Your task to perform on an android device: Open privacy settings Image 0: 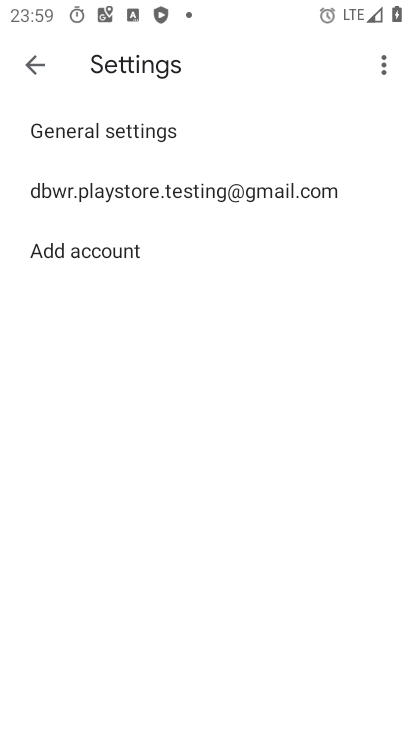
Step 0: press back button
Your task to perform on an android device: Open privacy settings Image 1: 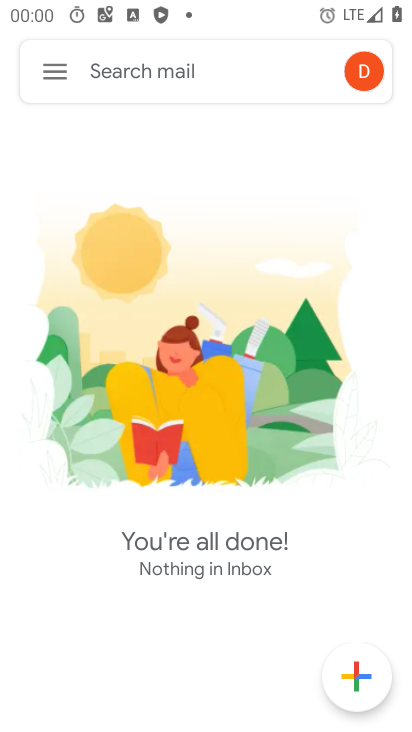
Step 1: press home button
Your task to perform on an android device: Open privacy settings Image 2: 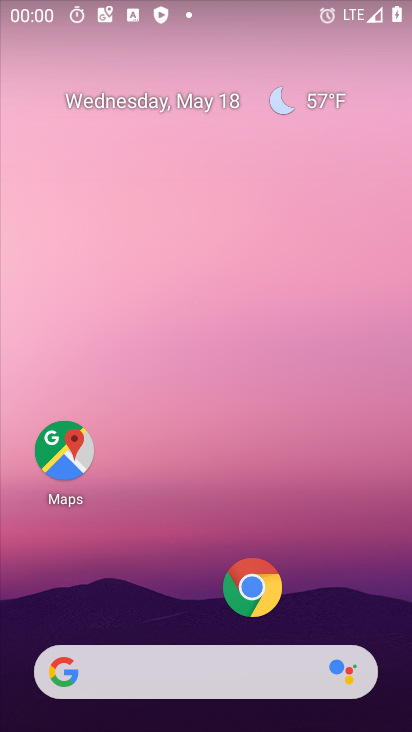
Step 2: drag from (41, 587) to (275, 194)
Your task to perform on an android device: Open privacy settings Image 3: 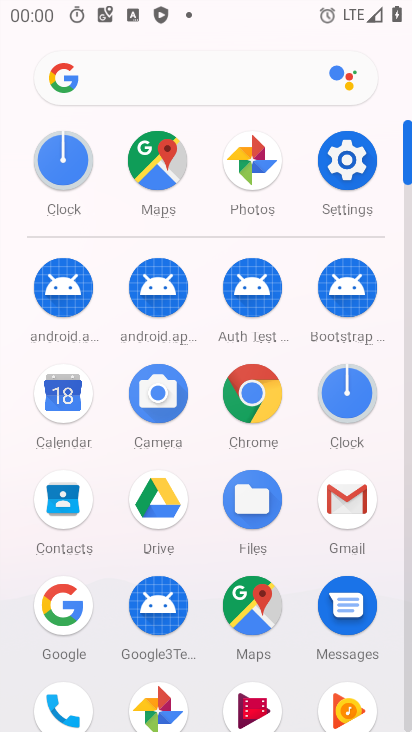
Step 3: click (358, 157)
Your task to perform on an android device: Open privacy settings Image 4: 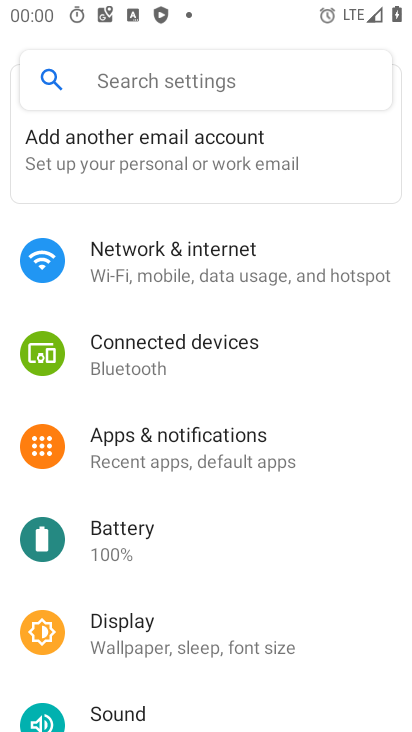
Step 4: drag from (26, 540) to (285, 180)
Your task to perform on an android device: Open privacy settings Image 5: 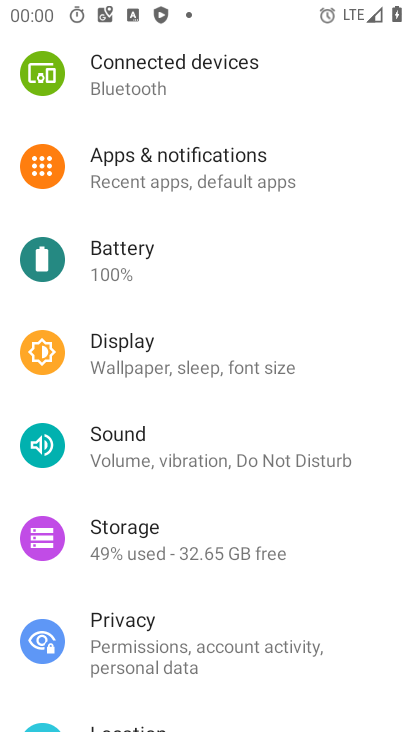
Step 5: click (184, 656)
Your task to perform on an android device: Open privacy settings Image 6: 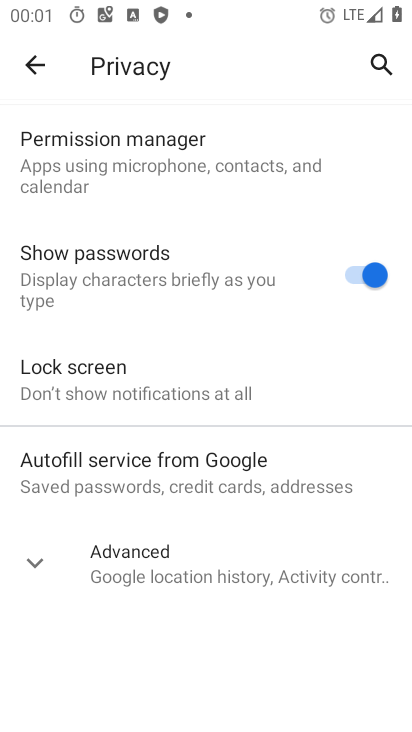
Step 6: press home button
Your task to perform on an android device: Open privacy settings Image 7: 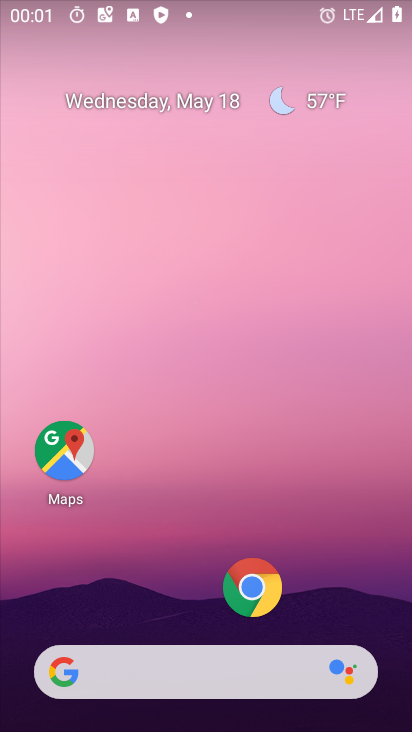
Step 7: drag from (105, 403) to (206, 132)
Your task to perform on an android device: Open privacy settings Image 8: 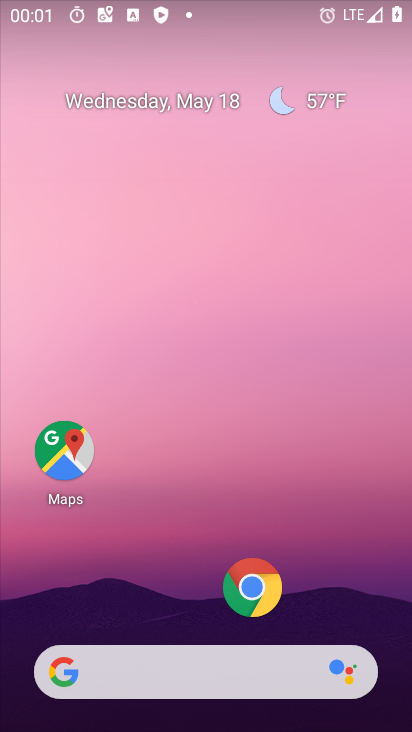
Step 8: drag from (141, 729) to (314, 35)
Your task to perform on an android device: Open privacy settings Image 9: 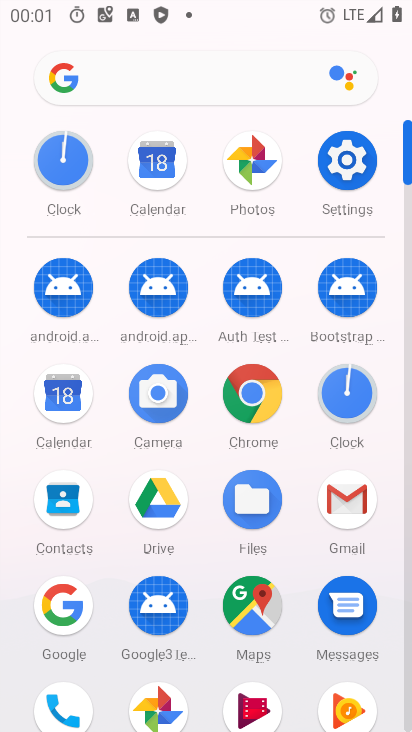
Step 9: click (330, 159)
Your task to perform on an android device: Open privacy settings Image 10: 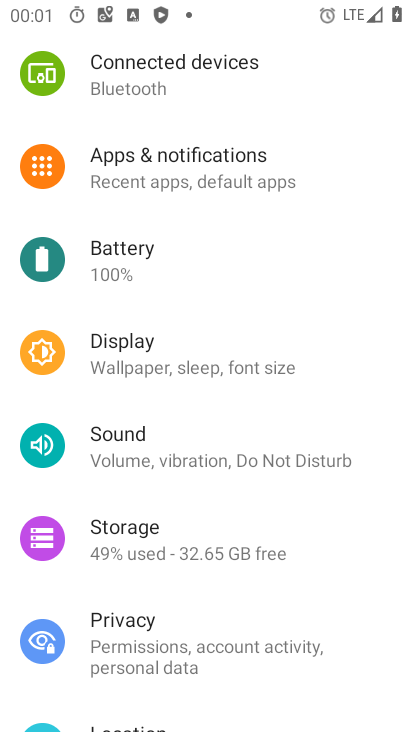
Step 10: click (131, 620)
Your task to perform on an android device: Open privacy settings Image 11: 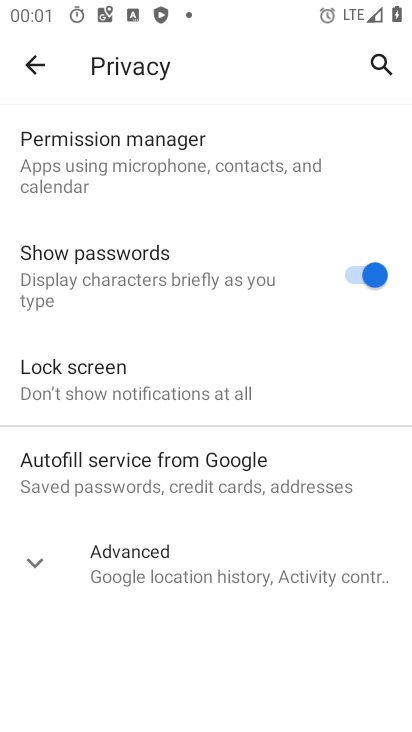
Step 11: task complete